Your task to perform on an android device: turn notification dots on Image 0: 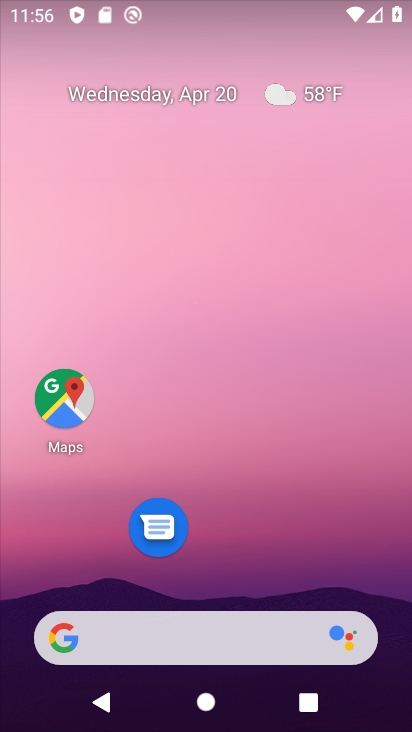
Step 0: drag from (218, 724) to (218, 85)
Your task to perform on an android device: turn notification dots on Image 1: 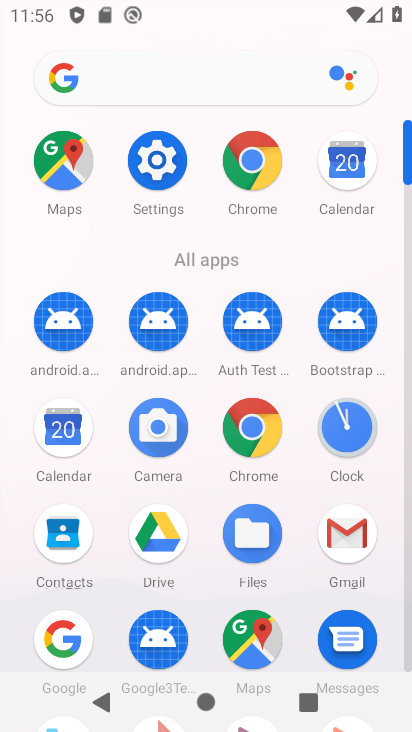
Step 1: click (148, 156)
Your task to perform on an android device: turn notification dots on Image 2: 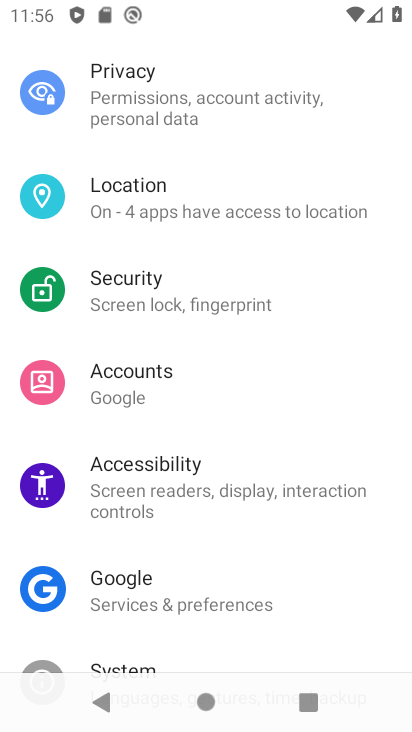
Step 2: drag from (223, 156) to (211, 549)
Your task to perform on an android device: turn notification dots on Image 3: 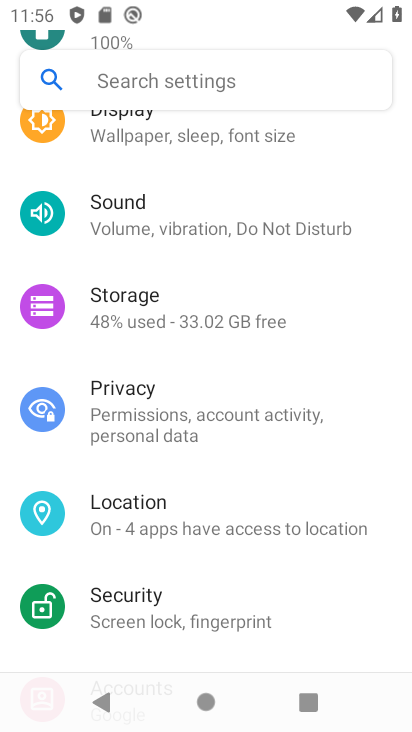
Step 3: drag from (186, 222) to (202, 519)
Your task to perform on an android device: turn notification dots on Image 4: 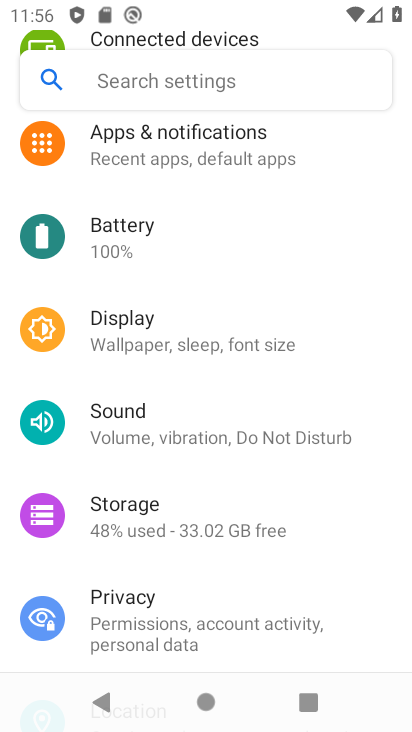
Step 4: click (165, 155)
Your task to perform on an android device: turn notification dots on Image 5: 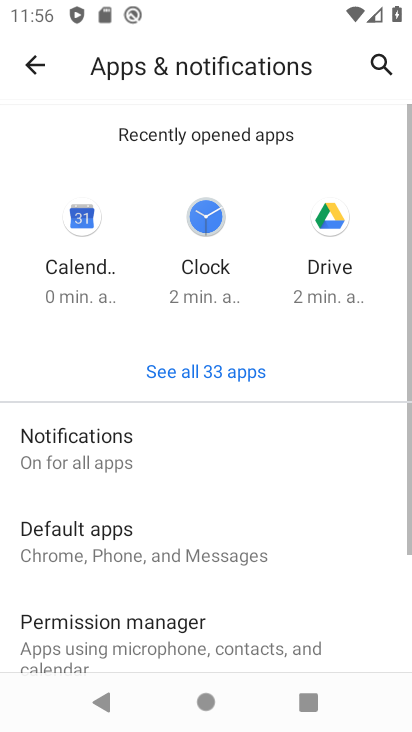
Step 5: click (103, 440)
Your task to perform on an android device: turn notification dots on Image 6: 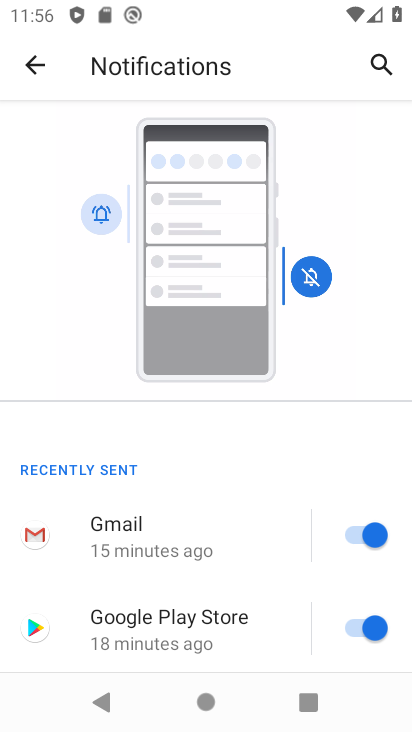
Step 6: drag from (204, 631) to (215, 231)
Your task to perform on an android device: turn notification dots on Image 7: 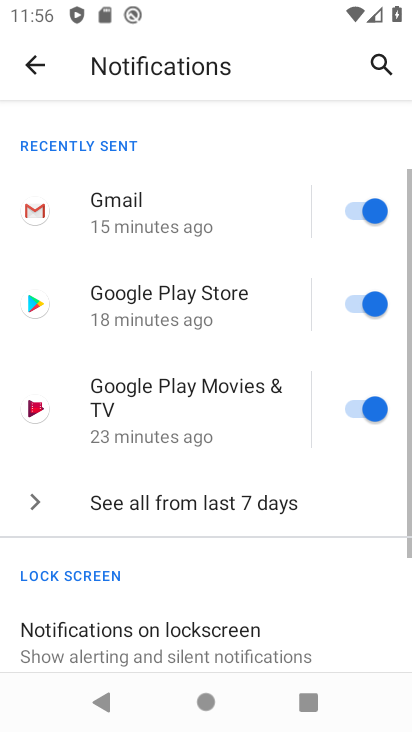
Step 7: drag from (224, 638) to (227, 221)
Your task to perform on an android device: turn notification dots on Image 8: 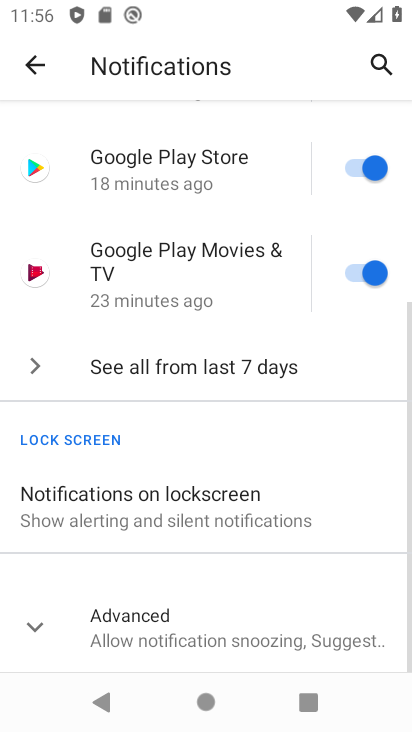
Step 8: click (133, 626)
Your task to perform on an android device: turn notification dots on Image 9: 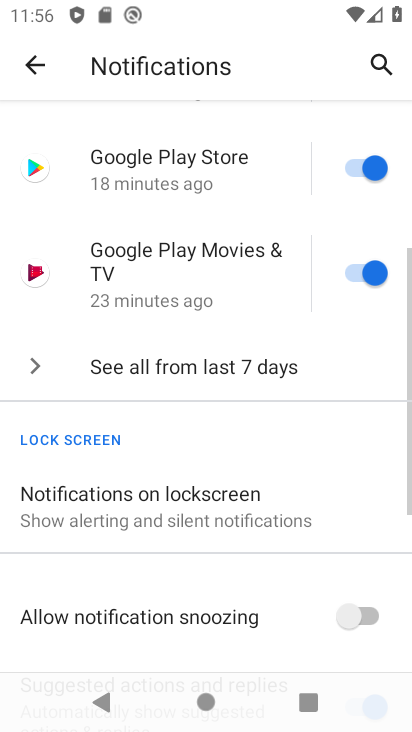
Step 9: drag from (233, 656) to (234, 284)
Your task to perform on an android device: turn notification dots on Image 10: 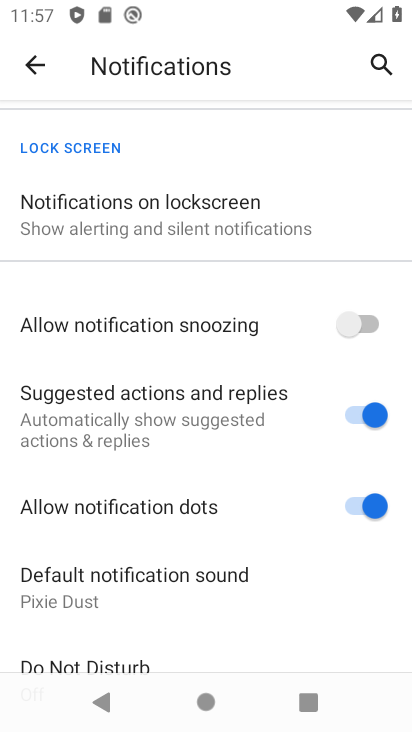
Step 10: click (356, 507)
Your task to perform on an android device: turn notification dots on Image 11: 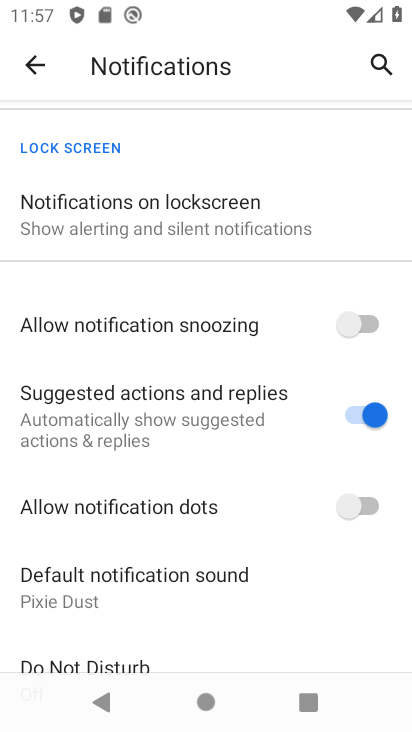
Step 11: task complete